Your task to perform on an android device: open wifi settings Image 0: 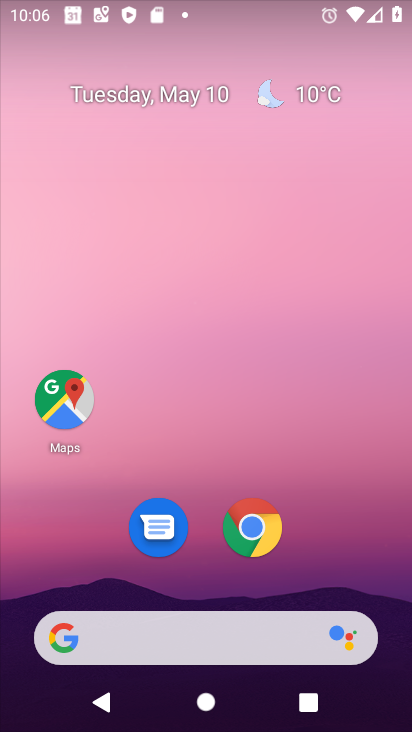
Step 0: drag from (229, 725) to (225, 80)
Your task to perform on an android device: open wifi settings Image 1: 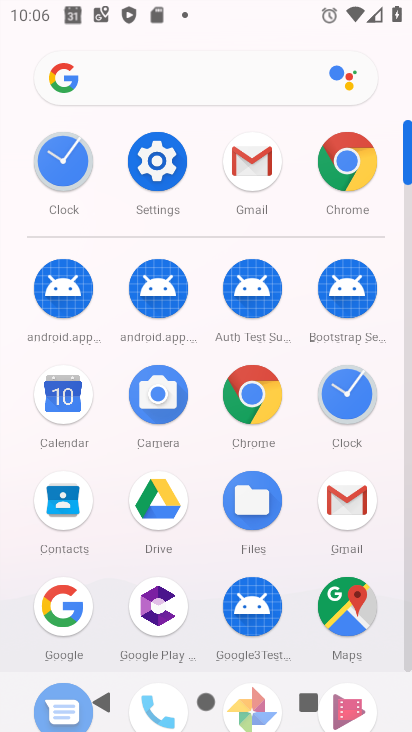
Step 1: click (162, 162)
Your task to perform on an android device: open wifi settings Image 2: 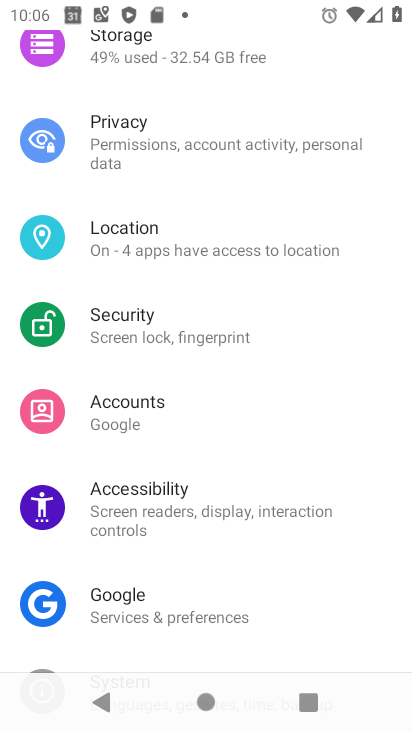
Step 2: drag from (332, 110) to (326, 525)
Your task to perform on an android device: open wifi settings Image 3: 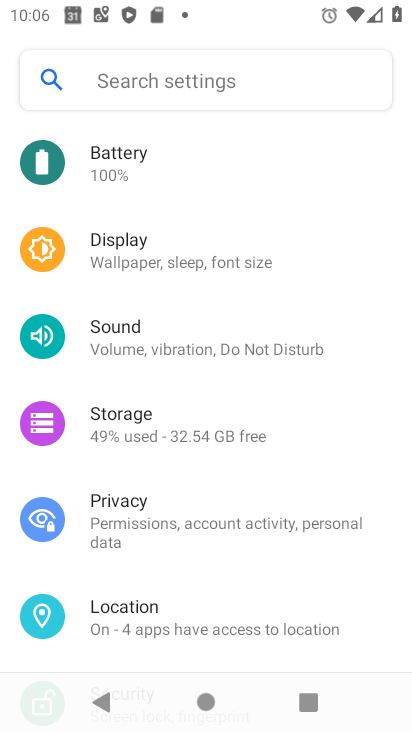
Step 3: drag from (302, 152) to (299, 582)
Your task to perform on an android device: open wifi settings Image 4: 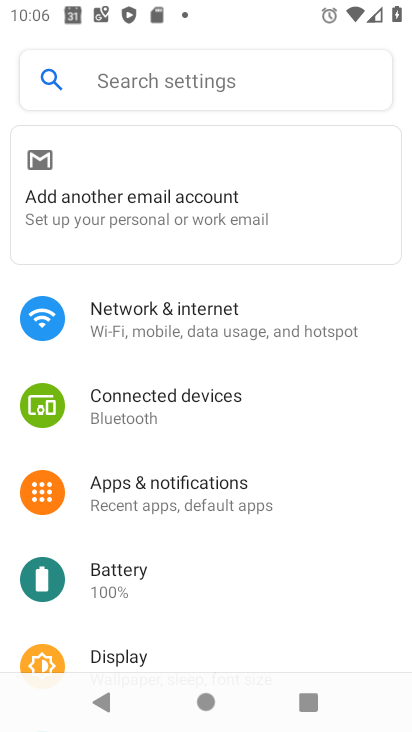
Step 4: click (151, 323)
Your task to perform on an android device: open wifi settings Image 5: 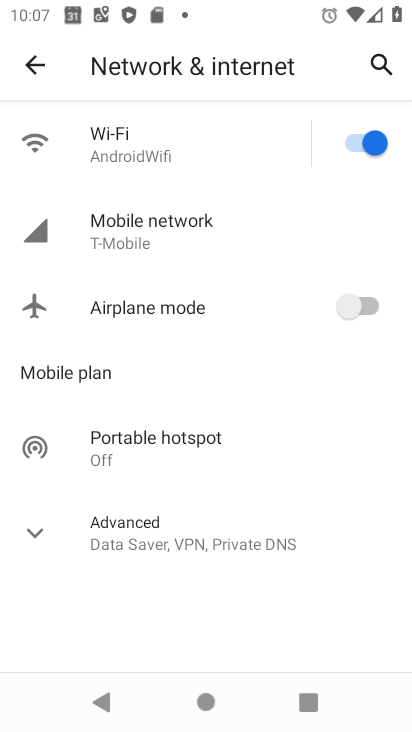
Step 5: task complete